Your task to perform on an android device: Add "macbook pro 13 inch" to the cart on bestbuy, then select checkout. Image 0: 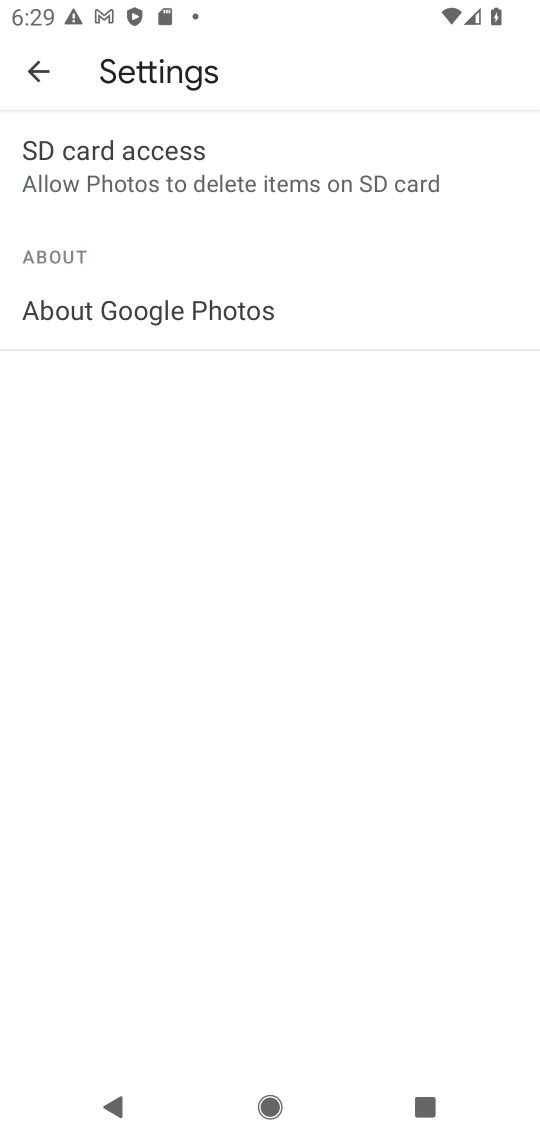
Step 0: press home button
Your task to perform on an android device: Add "macbook pro 13 inch" to the cart on bestbuy, then select checkout. Image 1: 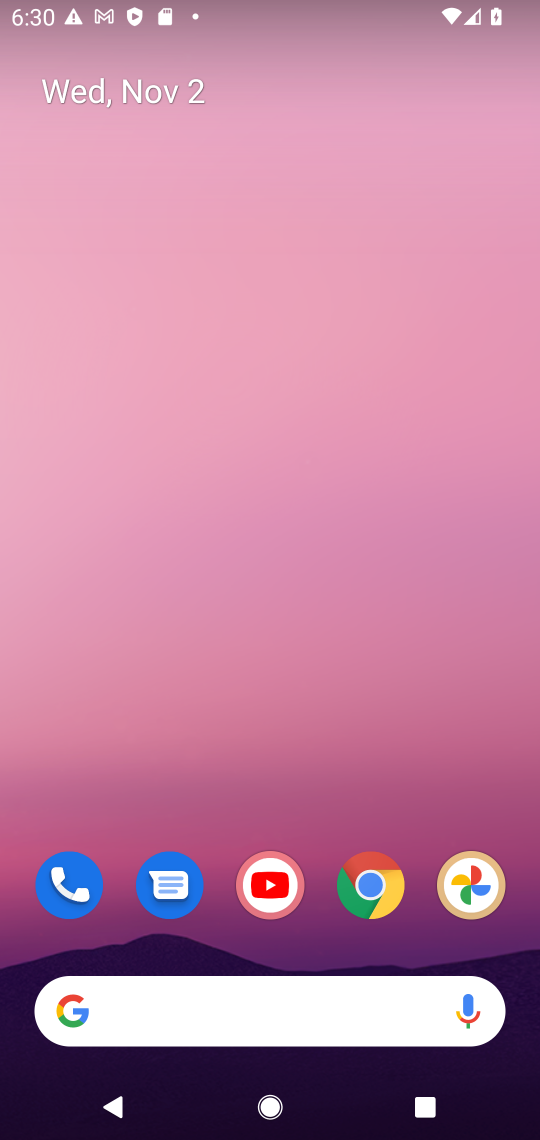
Step 1: click (374, 895)
Your task to perform on an android device: Add "macbook pro 13 inch" to the cart on bestbuy, then select checkout. Image 2: 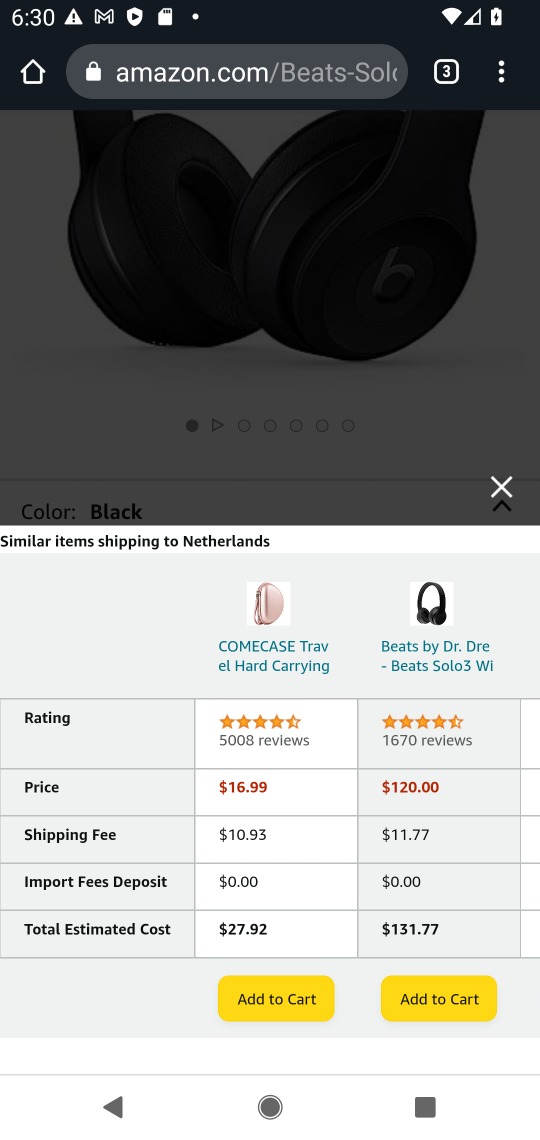
Step 2: click (500, 490)
Your task to perform on an android device: Add "macbook pro 13 inch" to the cart on bestbuy, then select checkout. Image 3: 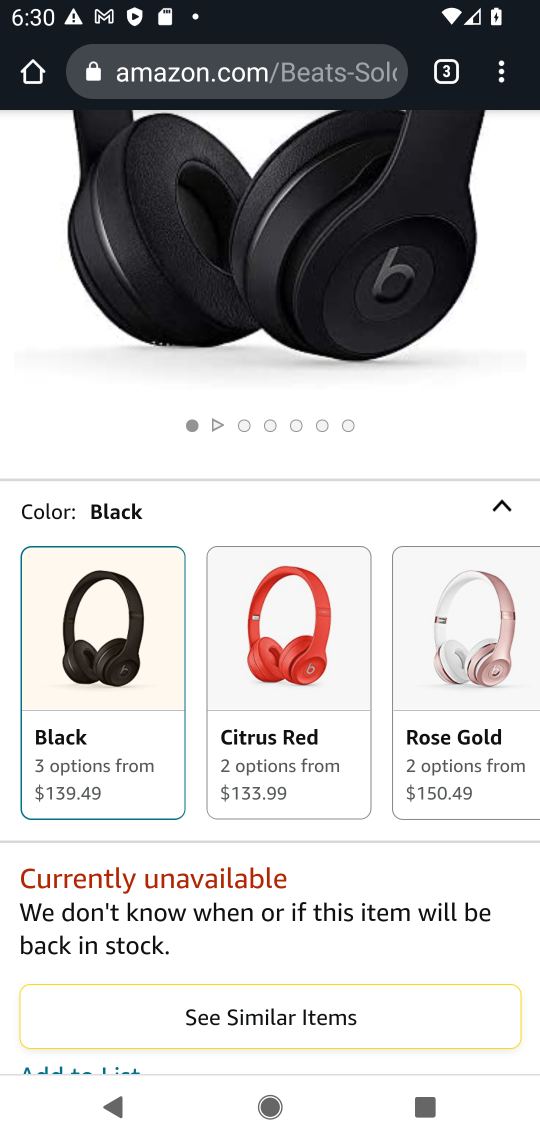
Step 3: drag from (281, 255) to (320, 798)
Your task to perform on an android device: Add "macbook pro 13 inch" to the cart on bestbuy, then select checkout. Image 4: 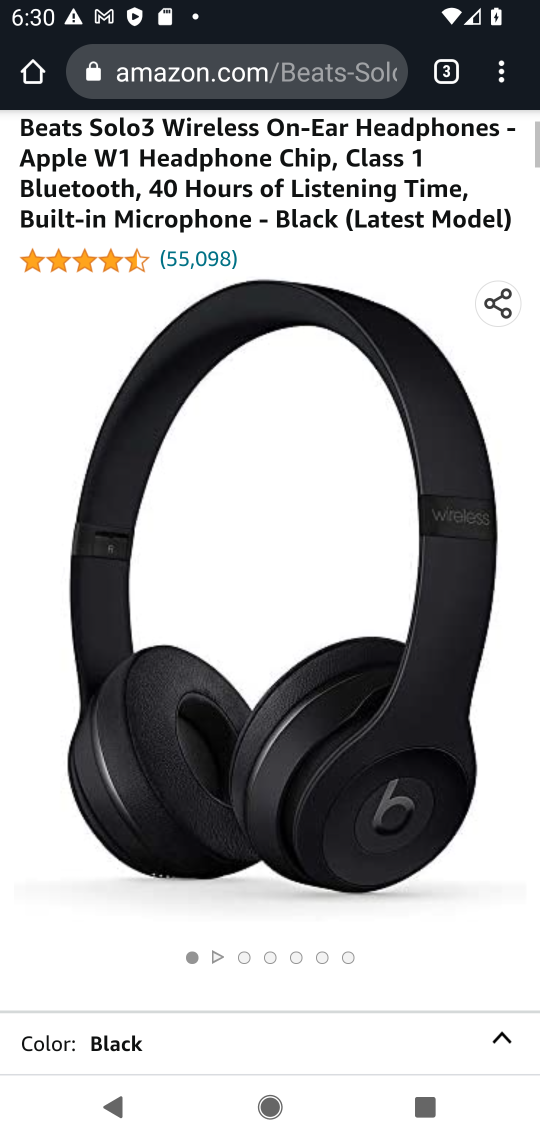
Step 4: drag from (304, 182) to (362, 789)
Your task to perform on an android device: Add "macbook pro 13 inch" to the cart on bestbuy, then select checkout. Image 5: 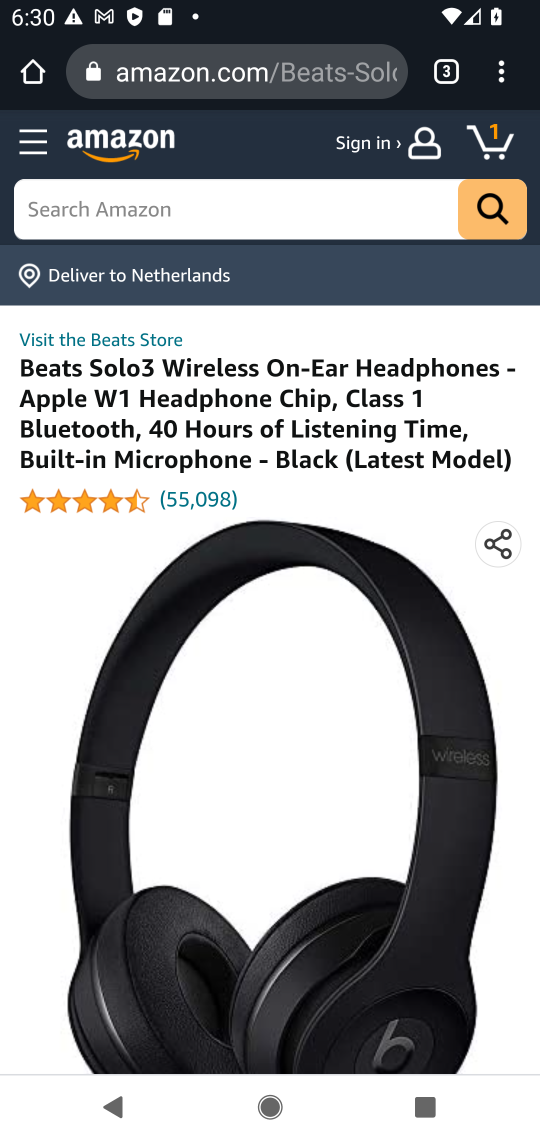
Step 5: drag from (254, 316) to (259, 701)
Your task to perform on an android device: Add "macbook pro 13 inch" to the cart on bestbuy, then select checkout. Image 6: 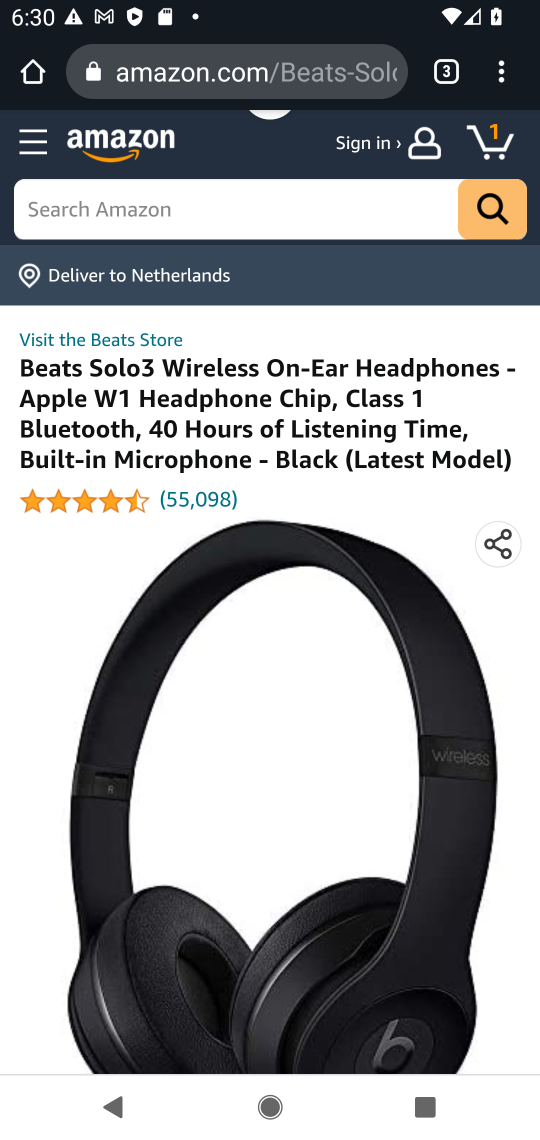
Step 6: click (264, 214)
Your task to perform on an android device: Add "macbook pro 13 inch" to the cart on bestbuy, then select checkout. Image 7: 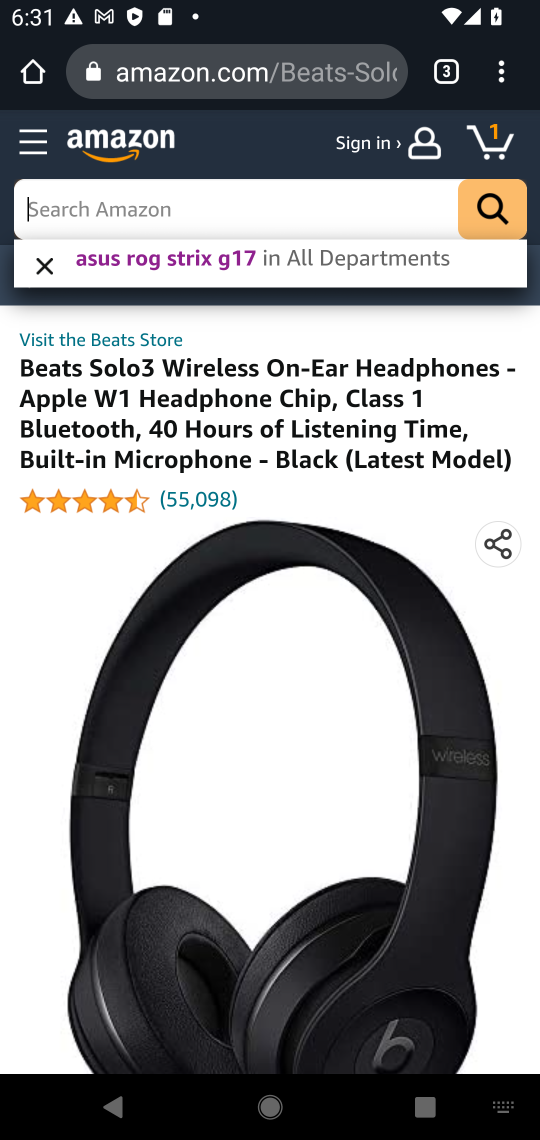
Step 7: drag from (86, 1102) to (267, 1099)
Your task to perform on an android device: Add "macbook pro 13 inch" to the cart on bestbuy, then select checkout. Image 8: 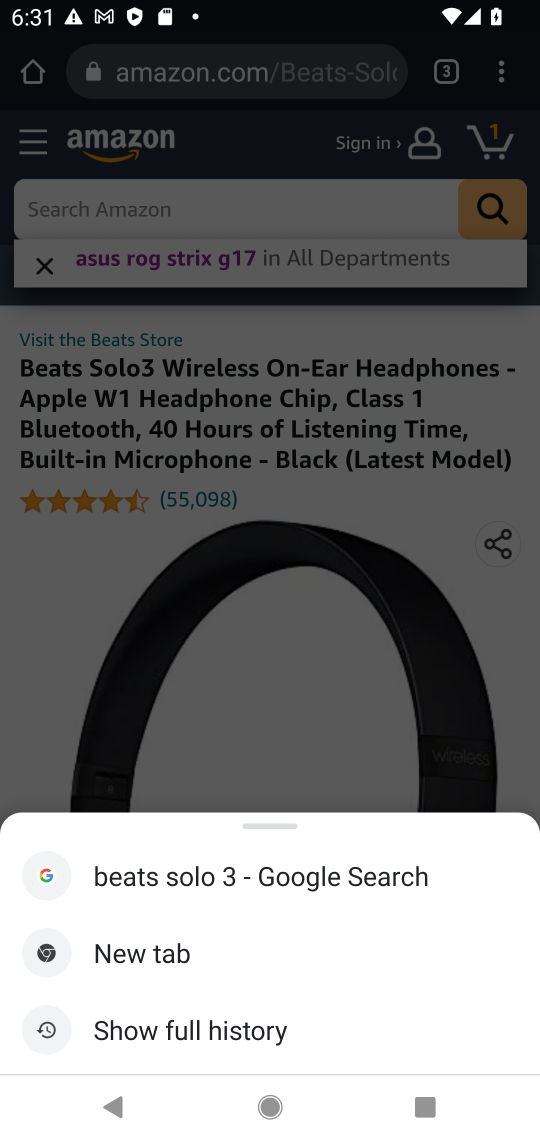
Step 8: click (411, 507)
Your task to perform on an android device: Add "macbook pro 13 inch" to the cart on bestbuy, then select checkout. Image 9: 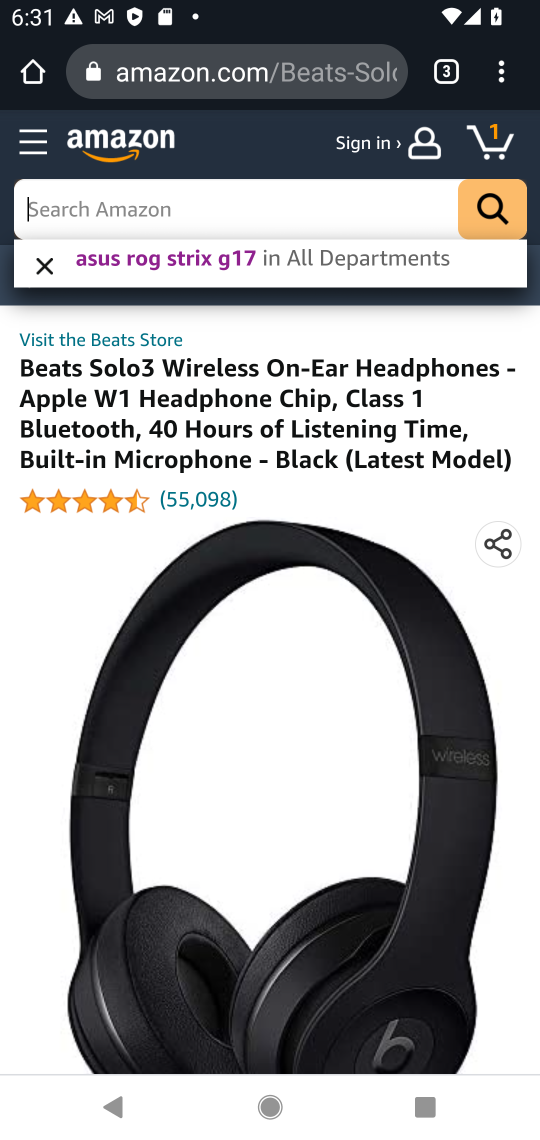
Step 9: type " pro 13 inch"
Your task to perform on an android device: Add "macbook pro 13 inch" to the cart on bestbuy, then select checkout. Image 10: 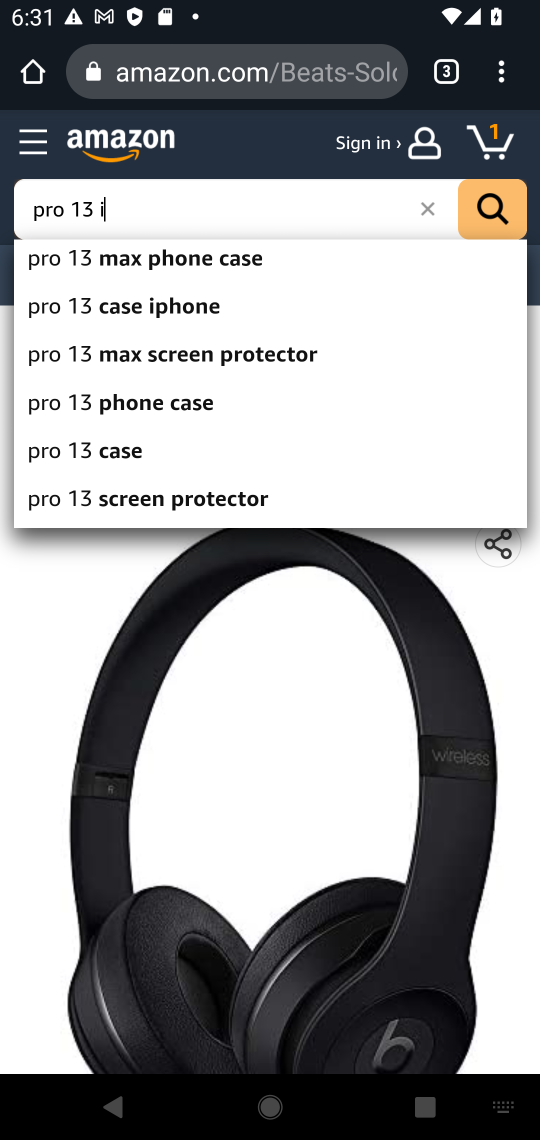
Step 10: type ""
Your task to perform on an android device: Add "macbook pro 13 inch" to the cart on bestbuy, then select checkout. Image 11: 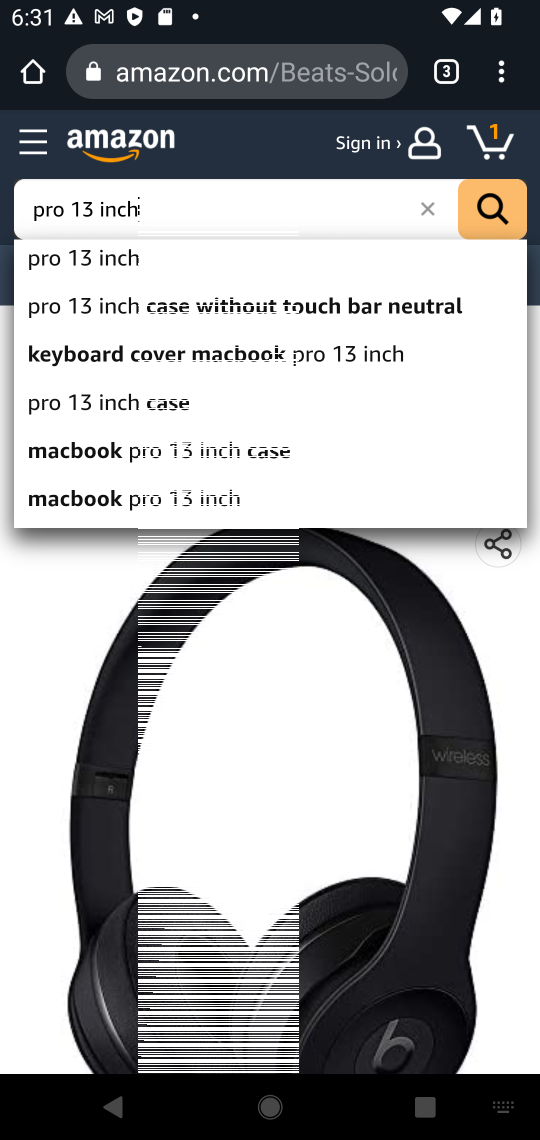
Step 11: click (112, 253)
Your task to perform on an android device: Add "macbook pro 13 inch" to the cart on bestbuy, then select checkout. Image 12: 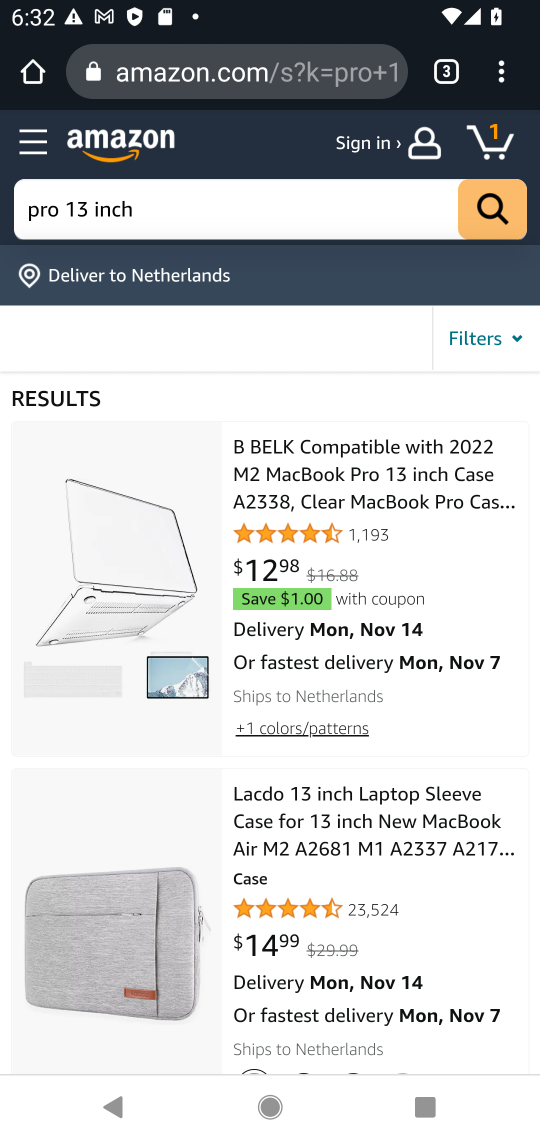
Step 12: click (377, 483)
Your task to perform on an android device: Add "macbook pro 13 inch" to the cart on bestbuy, then select checkout. Image 13: 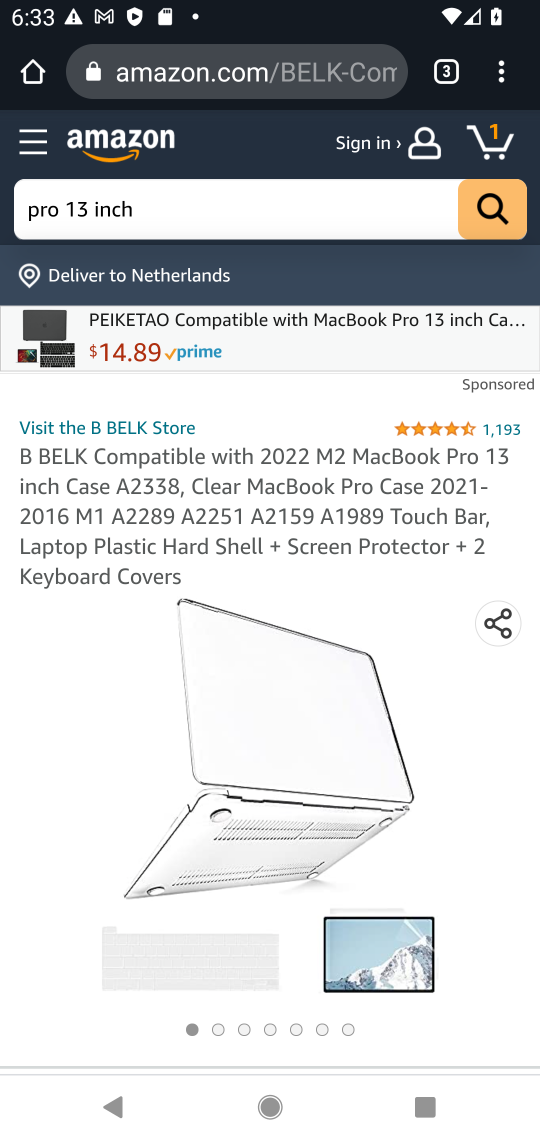
Step 13: drag from (201, 977) to (229, 490)
Your task to perform on an android device: Add "macbook pro 13 inch" to the cart on bestbuy, then select checkout. Image 14: 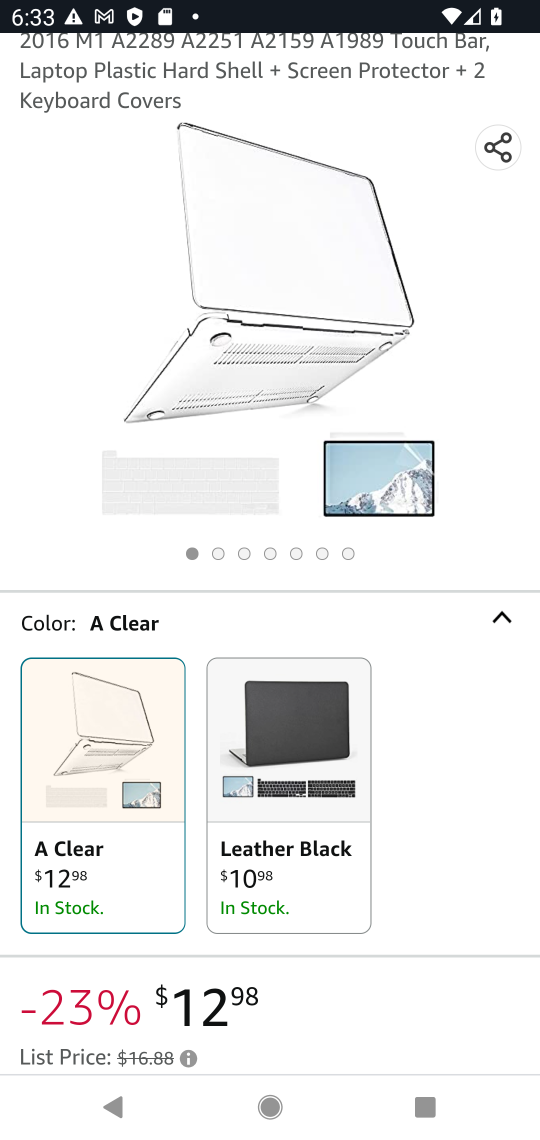
Step 14: drag from (286, 1018) to (322, 452)
Your task to perform on an android device: Add "macbook pro 13 inch" to the cart on bestbuy, then select checkout. Image 15: 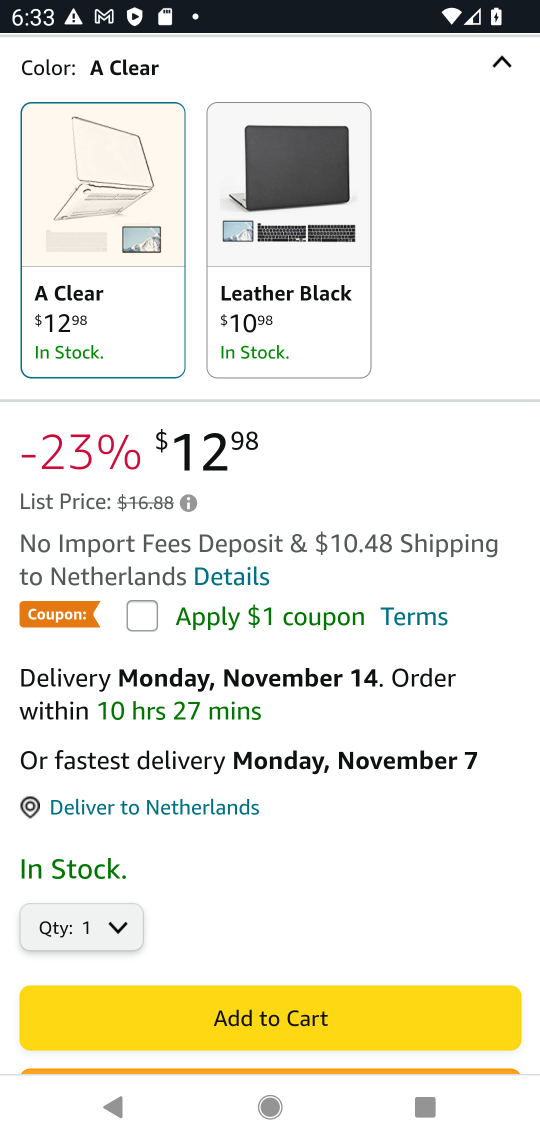
Step 15: click (275, 1014)
Your task to perform on an android device: Add "macbook pro 13 inch" to the cart on bestbuy, then select checkout. Image 16: 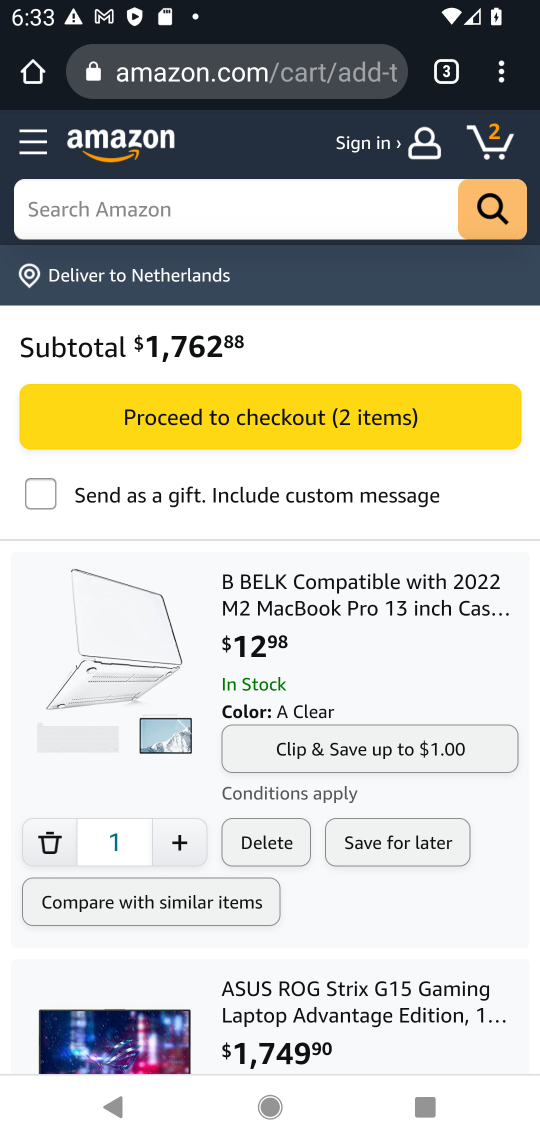
Step 16: task complete